Your task to perform on an android device: open wifi settings Image 0: 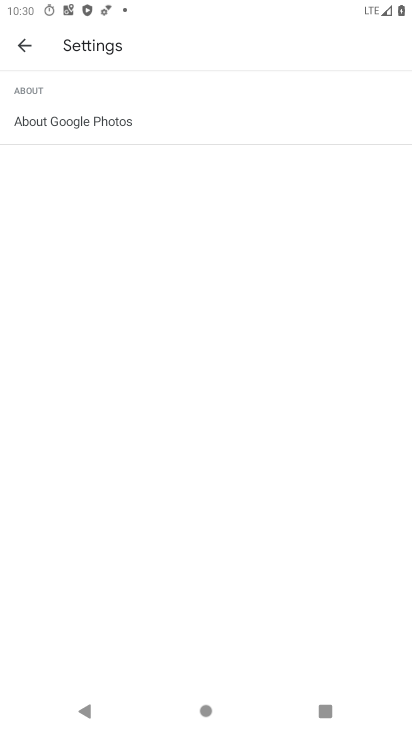
Step 0: press home button
Your task to perform on an android device: open wifi settings Image 1: 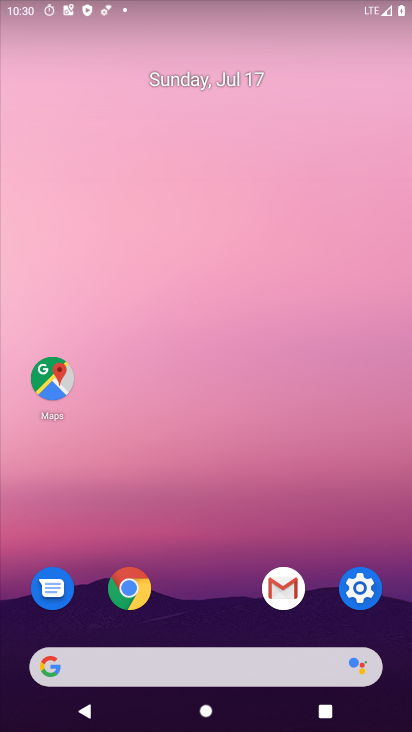
Step 1: click (365, 605)
Your task to perform on an android device: open wifi settings Image 2: 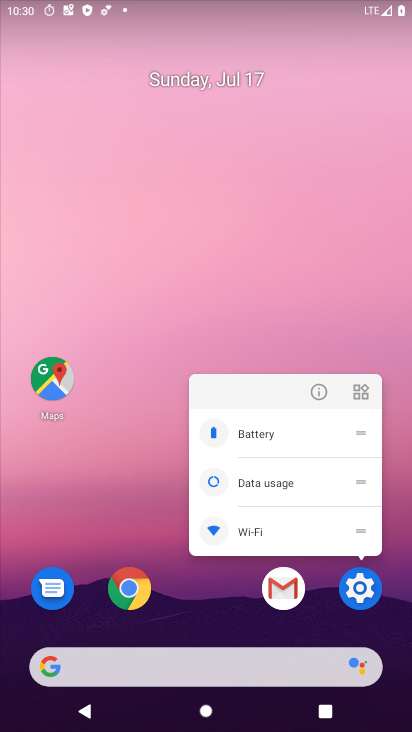
Step 2: click (354, 595)
Your task to perform on an android device: open wifi settings Image 3: 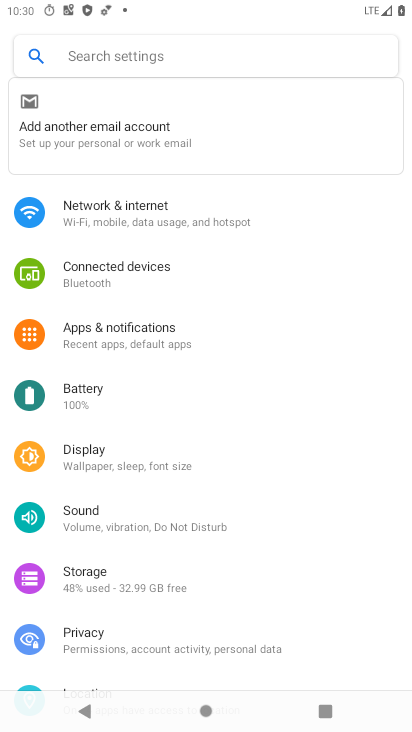
Step 3: click (180, 219)
Your task to perform on an android device: open wifi settings Image 4: 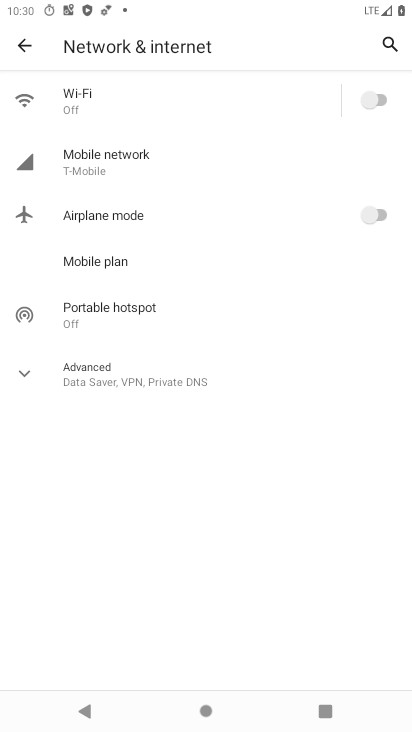
Step 4: click (109, 100)
Your task to perform on an android device: open wifi settings Image 5: 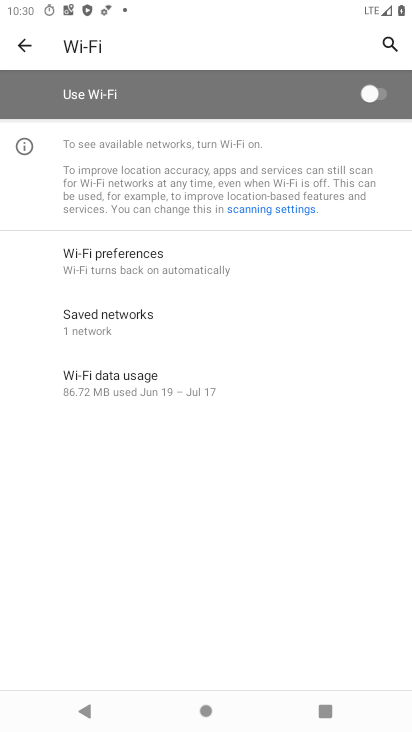
Step 5: task complete